Your task to perform on an android device: see sites visited before in the chrome app Image 0: 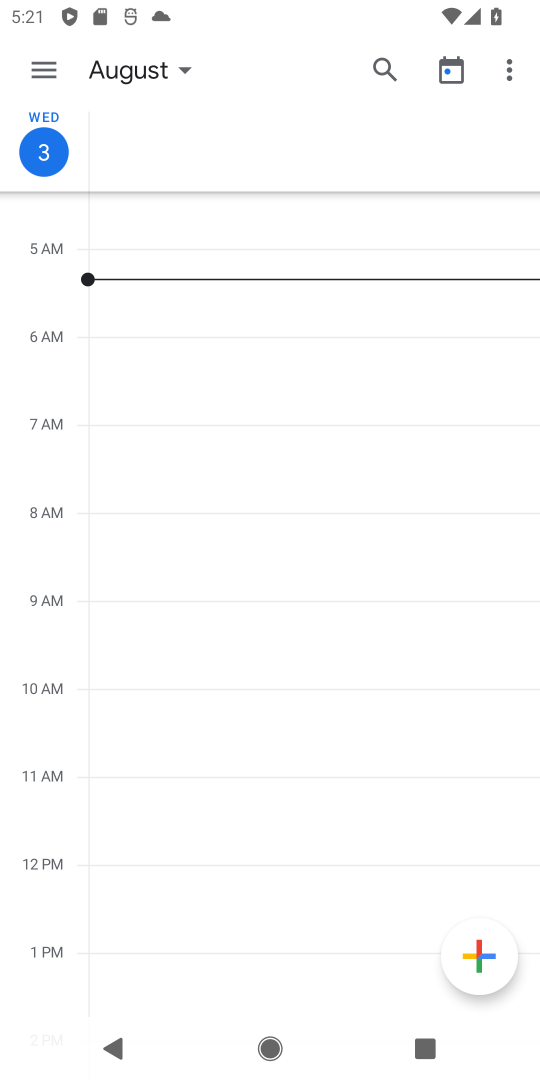
Step 0: press back button
Your task to perform on an android device: see sites visited before in the chrome app Image 1: 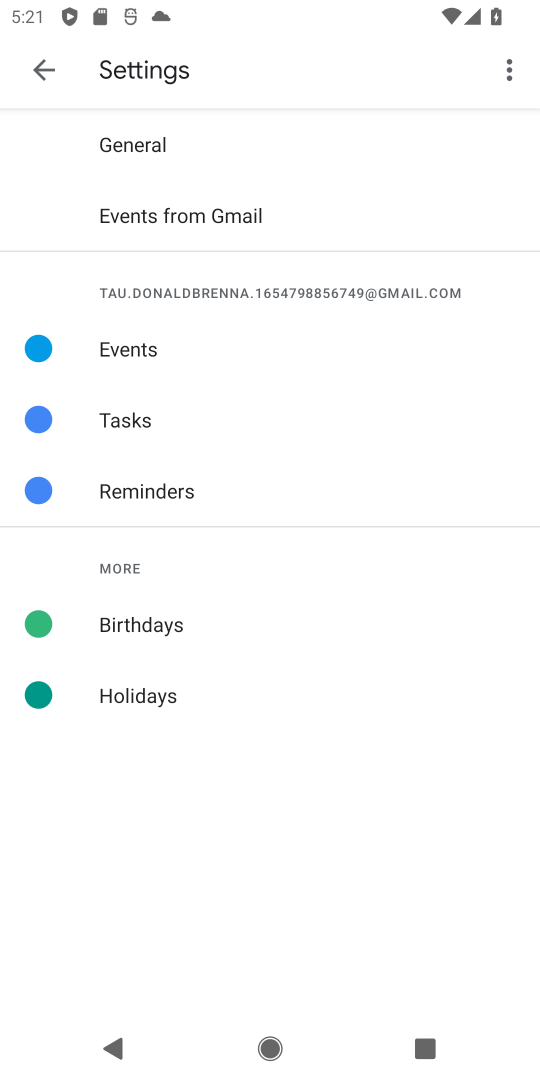
Step 1: press back button
Your task to perform on an android device: see sites visited before in the chrome app Image 2: 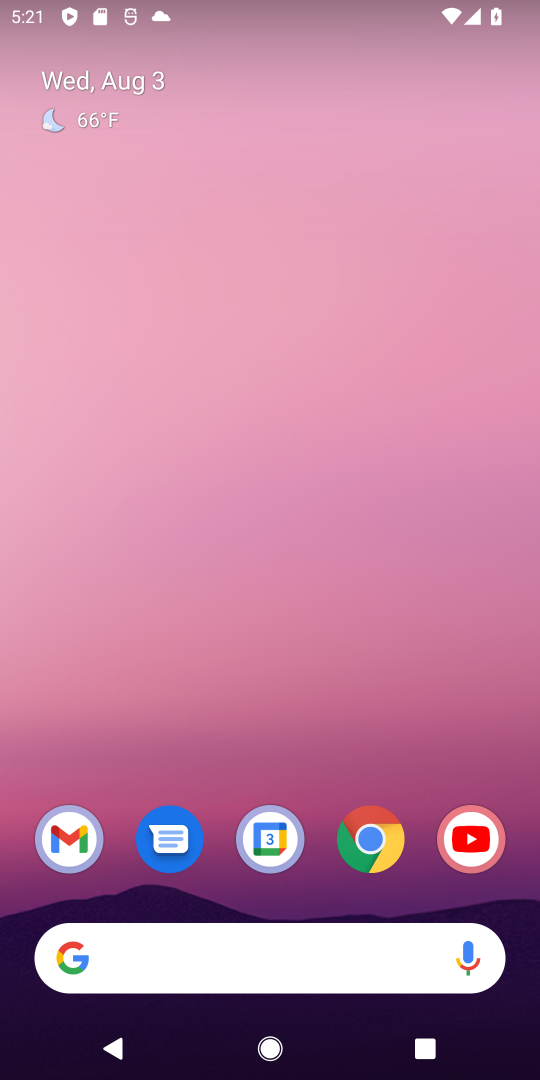
Step 2: click (372, 828)
Your task to perform on an android device: see sites visited before in the chrome app Image 3: 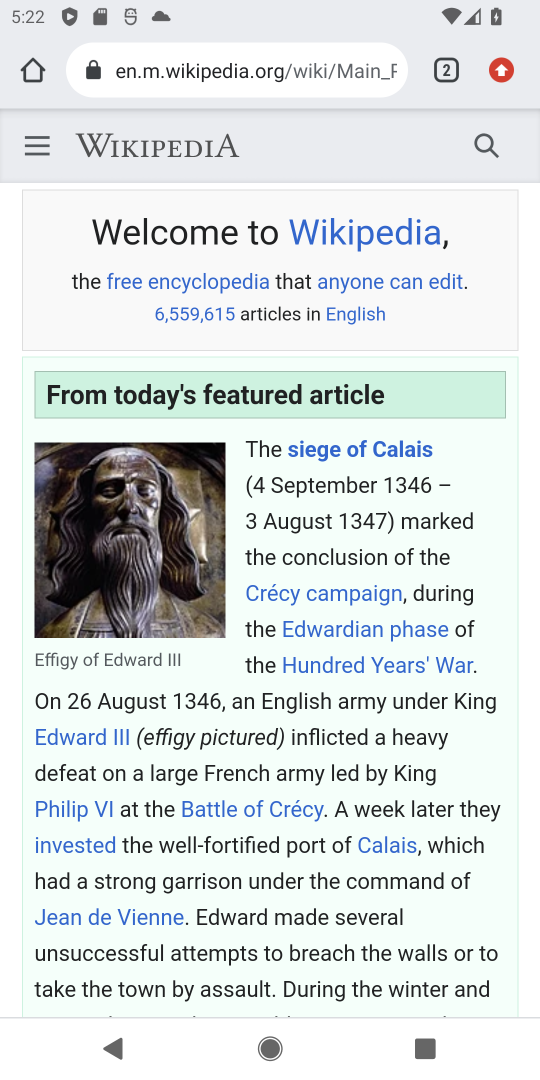
Step 3: task complete